Your task to perform on an android device: Search for sushi restaurants on Maps Image 0: 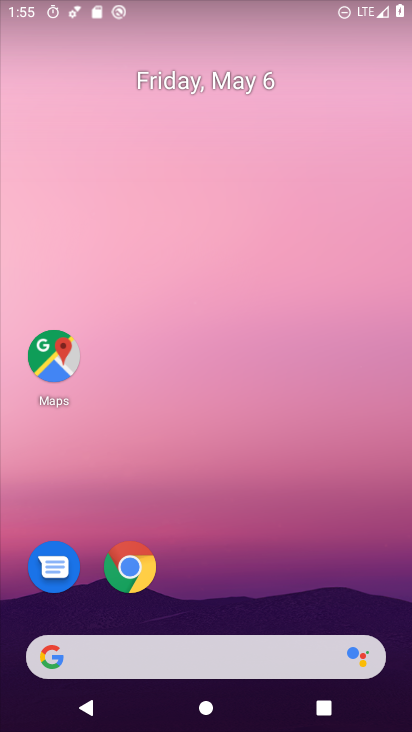
Step 0: drag from (298, 681) to (323, 227)
Your task to perform on an android device: Search for sushi restaurants on Maps Image 1: 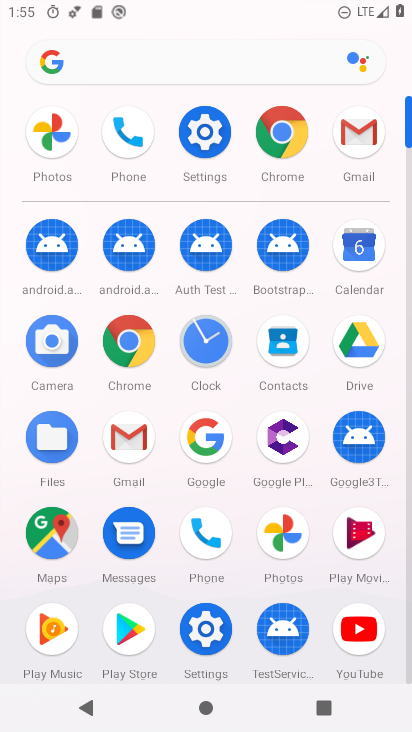
Step 1: click (63, 528)
Your task to perform on an android device: Search for sushi restaurants on Maps Image 2: 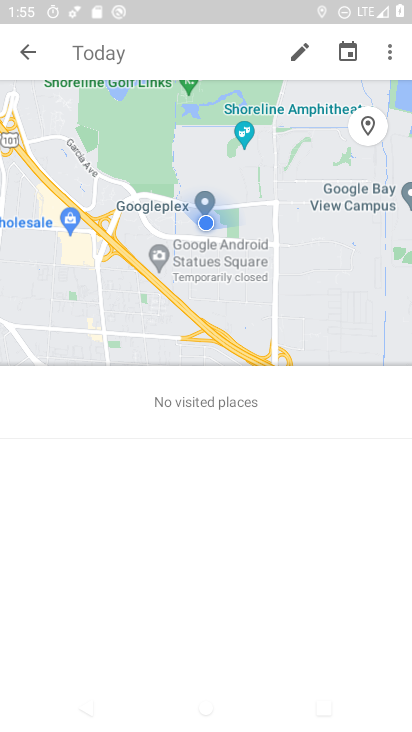
Step 2: click (17, 56)
Your task to perform on an android device: Search for sushi restaurants on Maps Image 3: 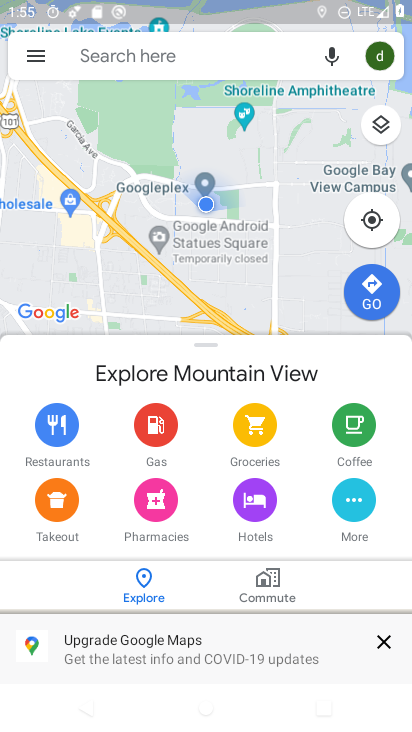
Step 3: click (103, 60)
Your task to perform on an android device: Search for sushi restaurants on Maps Image 4: 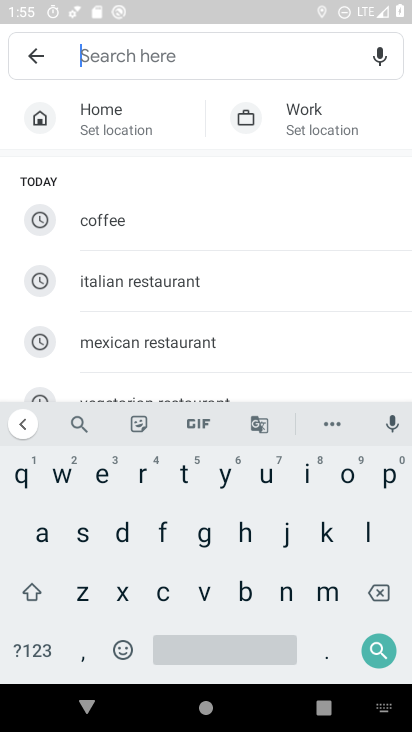
Step 4: click (140, 478)
Your task to perform on an android device: Search for sushi restaurants on Maps Image 5: 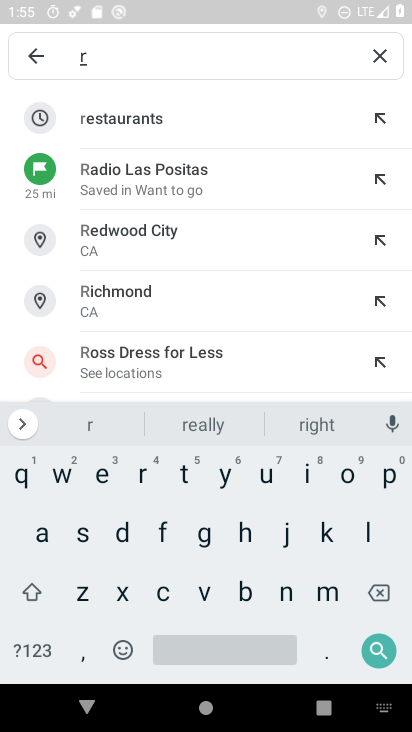
Step 5: click (379, 589)
Your task to perform on an android device: Search for sushi restaurants on Maps Image 6: 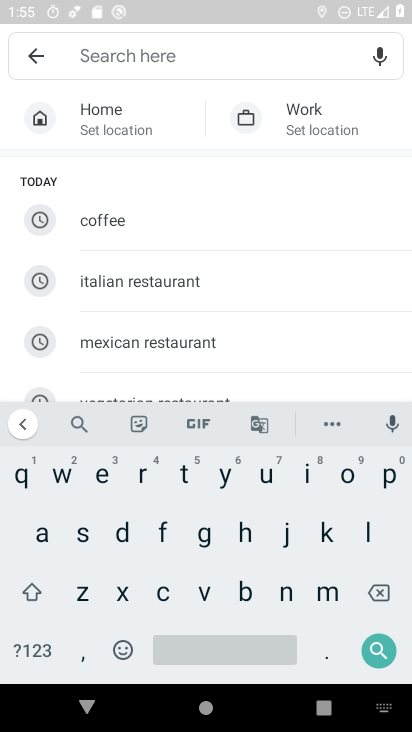
Step 6: click (79, 539)
Your task to perform on an android device: Search for sushi restaurants on Maps Image 7: 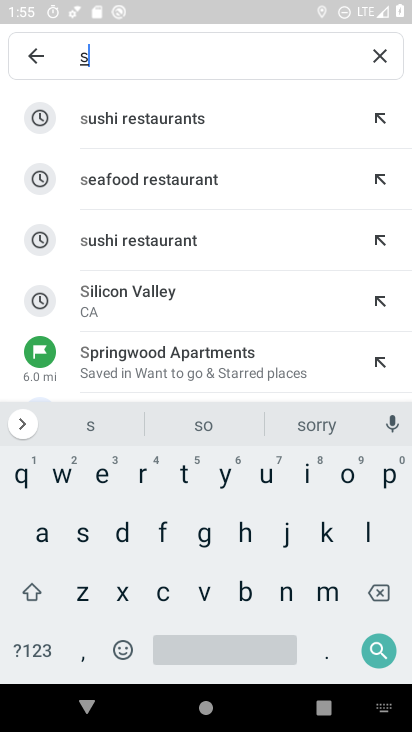
Step 7: click (163, 129)
Your task to perform on an android device: Search for sushi restaurants on Maps Image 8: 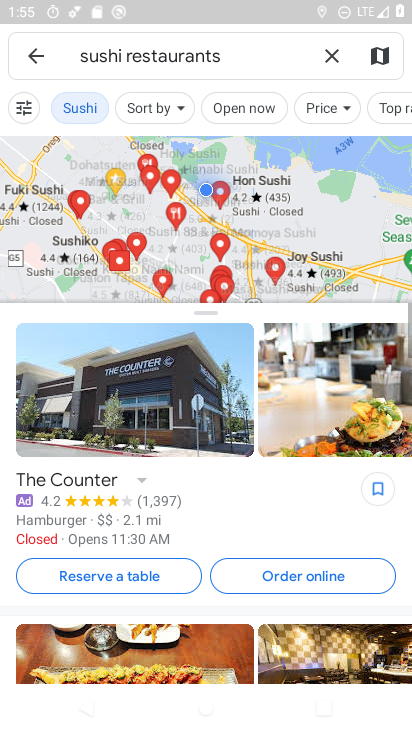
Step 8: click (148, 212)
Your task to perform on an android device: Search for sushi restaurants on Maps Image 9: 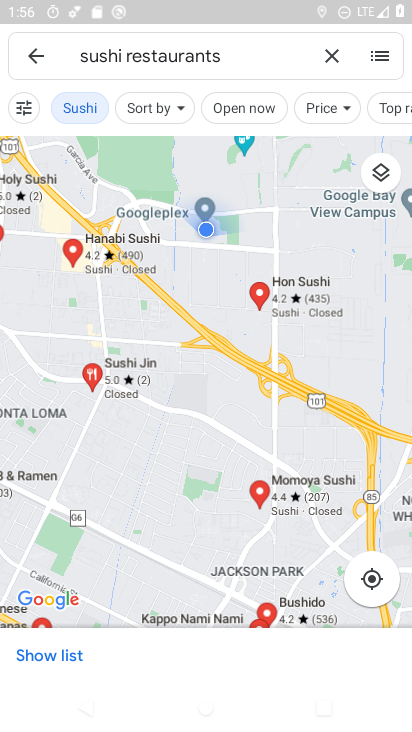
Step 9: task complete